Your task to perform on an android device: change alarm snooze length Image 0: 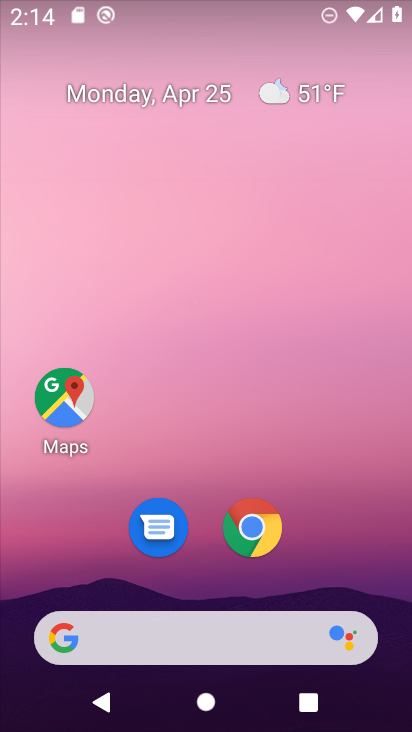
Step 0: drag from (399, 544) to (329, 89)
Your task to perform on an android device: change alarm snooze length Image 1: 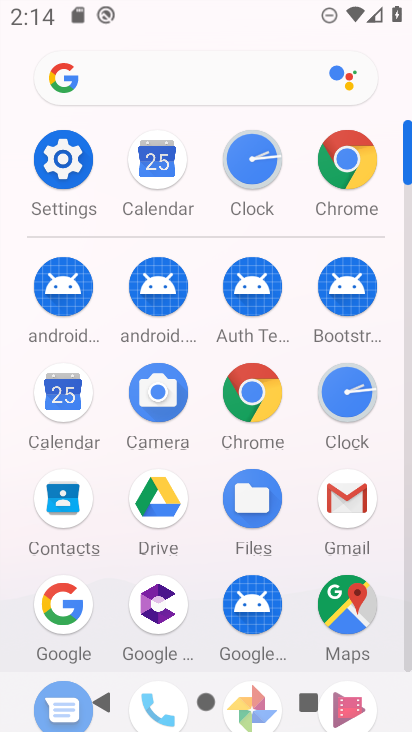
Step 1: drag from (12, 508) to (23, 153)
Your task to perform on an android device: change alarm snooze length Image 2: 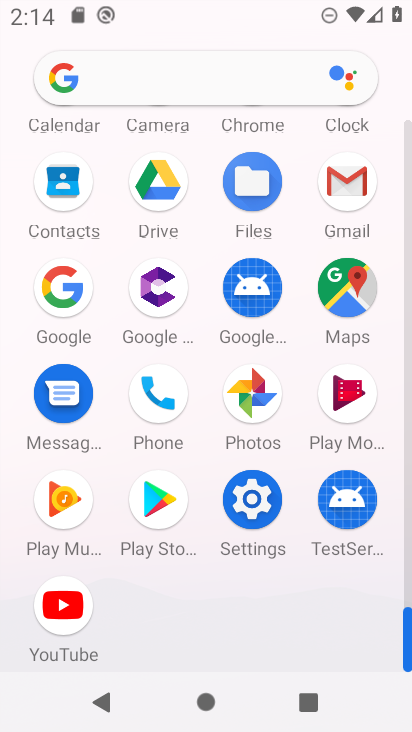
Step 2: drag from (12, 183) to (5, 416)
Your task to perform on an android device: change alarm snooze length Image 3: 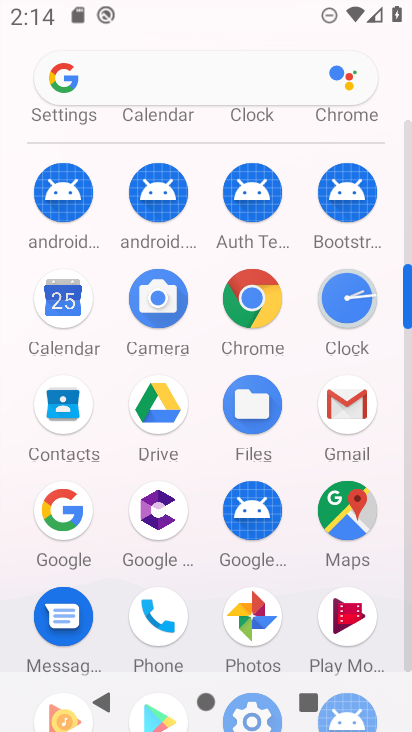
Step 3: click (342, 299)
Your task to perform on an android device: change alarm snooze length Image 4: 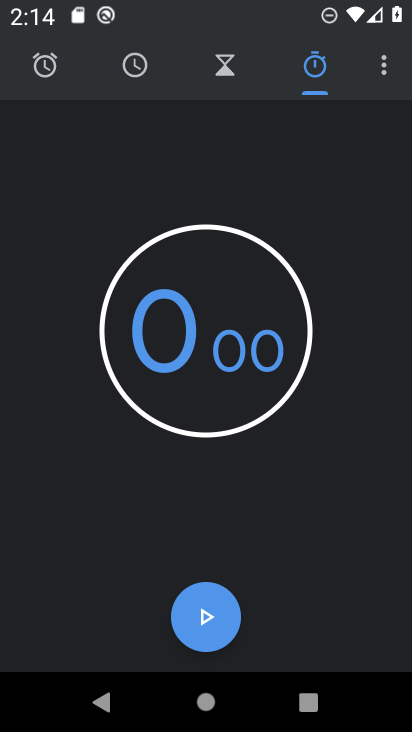
Step 4: click (376, 75)
Your task to perform on an android device: change alarm snooze length Image 5: 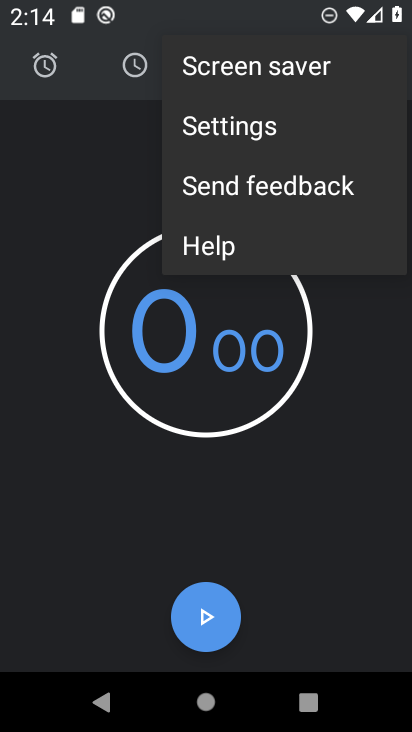
Step 5: click (287, 112)
Your task to perform on an android device: change alarm snooze length Image 6: 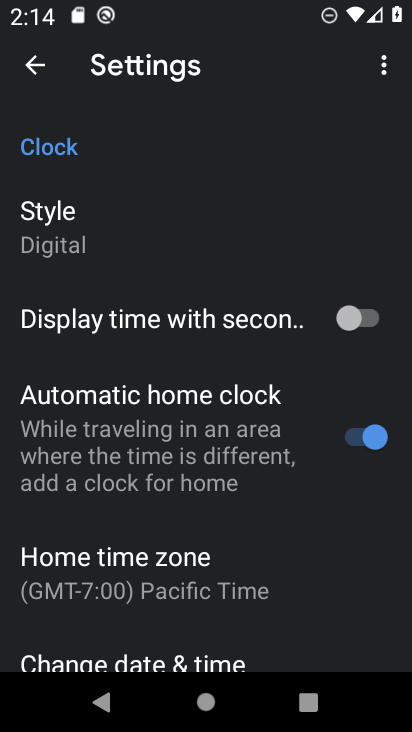
Step 6: drag from (185, 564) to (195, 213)
Your task to perform on an android device: change alarm snooze length Image 7: 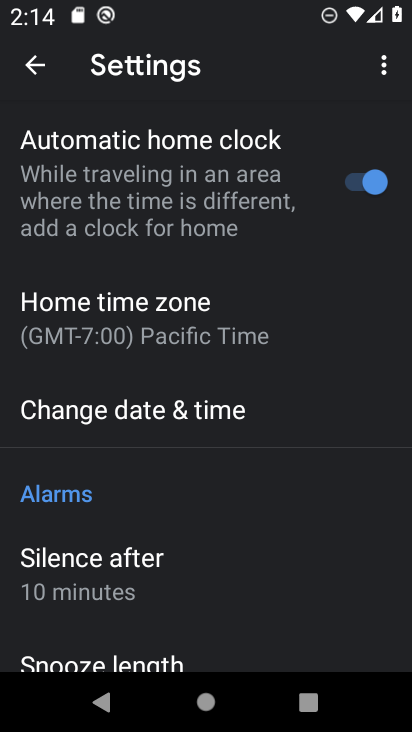
Step 7: drag from (257, 433) to (256, 248)
Your task to perform on an android device: change alarm snooze length Image 8: 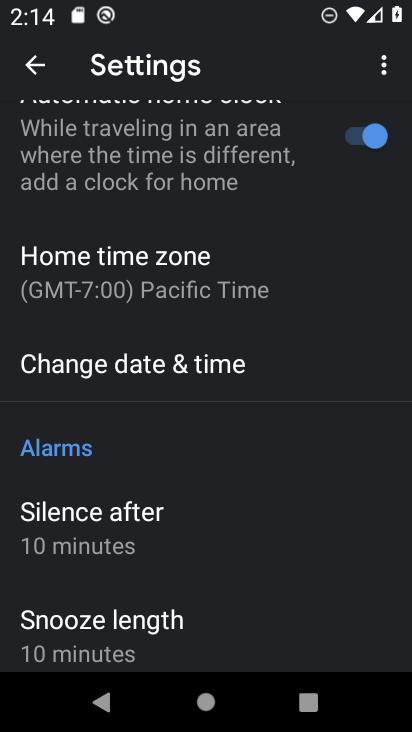
Step 8: drag from (254, 555) to (249, 214)
Your task to perform on an android device: change alarm snooze length Image 9: 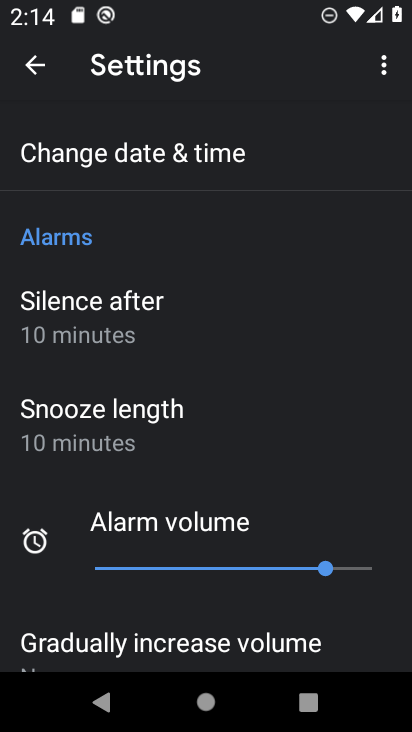
Step 9: click (165, 414)
Your task to perform on an android device: change alarm snooze length Image 10: 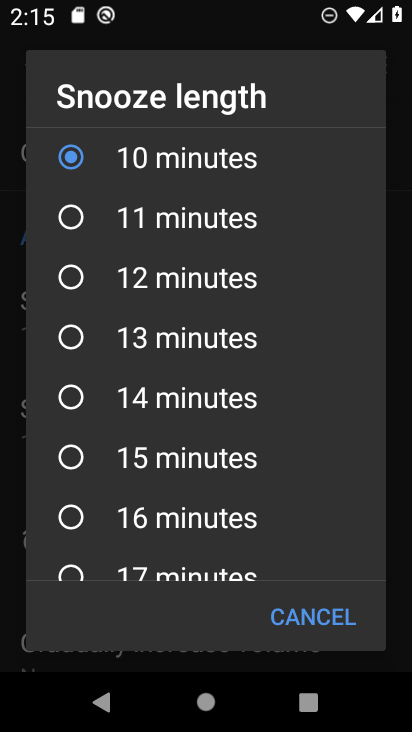
Step 10: click (164, 208)
Your task to perform on an android device: change alarm snooze length Image 11: 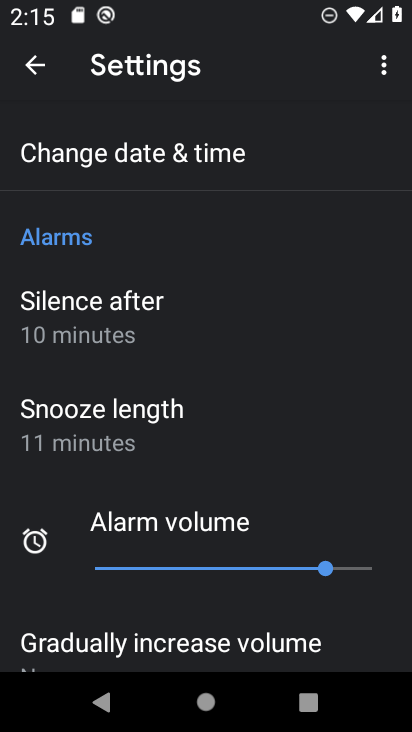
Step 11: task complete